Your task to perform on an android device: Go to Google maps Image 0: 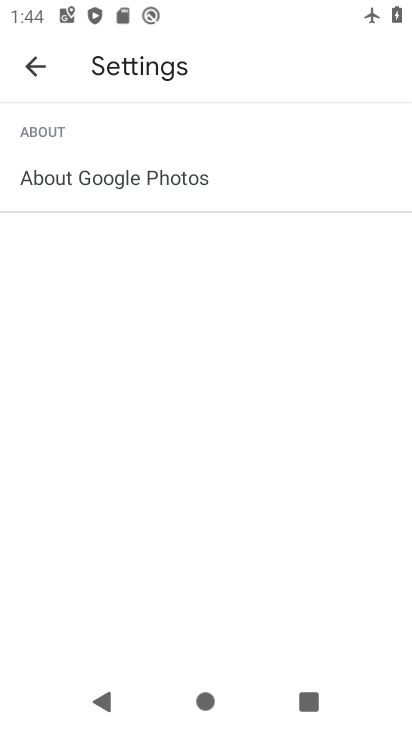
Step 0: press home button
Your task to perform on an android device: Go to Google maps Image 1: 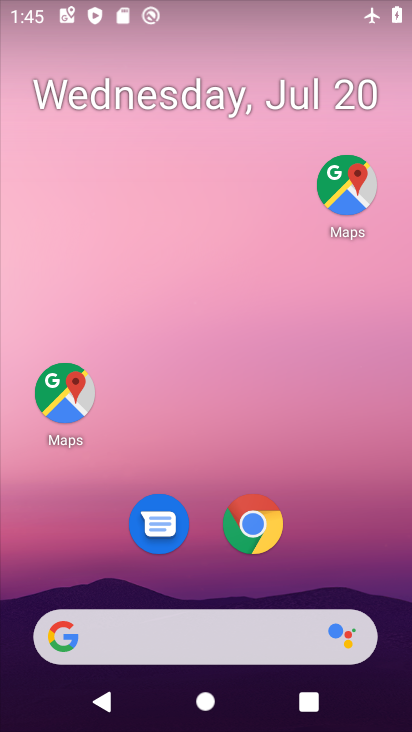
Step 1: click (409, 239)
Your task to perform on an android device: Go to Google maps Image 2: 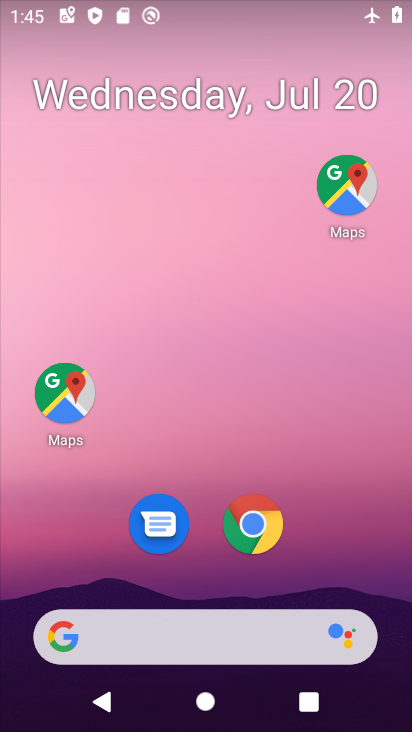
Step 2: click (73, 400)
Your task to perform on an android device: Go to Google maps Image 3: 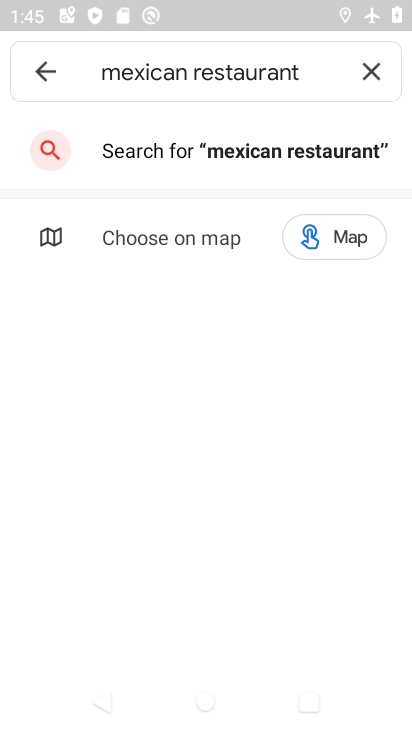
Step 3: click (375, 70)
Your task to perform on an android device: Go to Google maps Image 4: 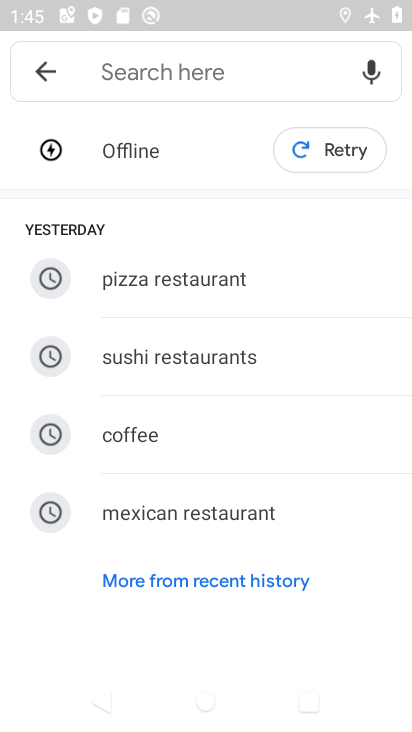
Step 4: click (353, 145)
Your task to perform on an android device: Go to Google maps Image 5: 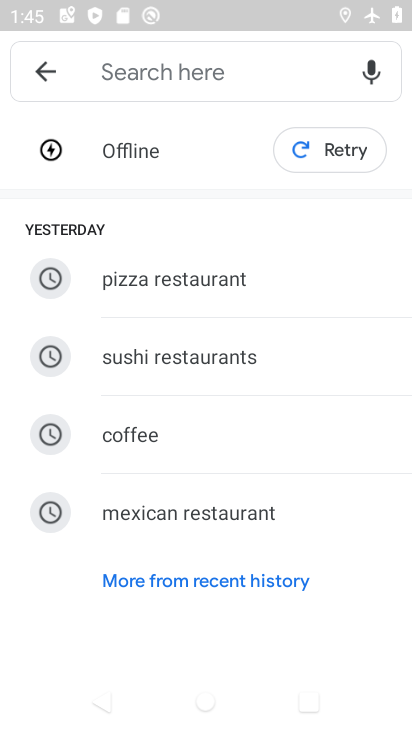
Step 5: click (42, 67)
Your task to perform on an android device: Go to Google maps Image 6: 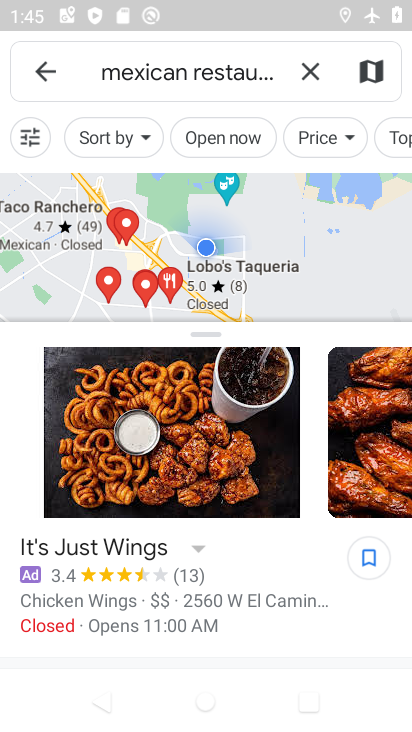
Step 6: click (42, 67)
Your task to perform on an android device: Go to Google maps Image 7: 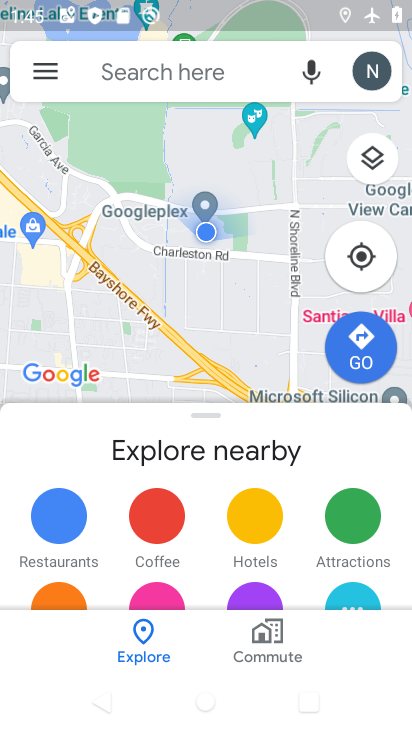
Step 7: task complete